Your task to perform on an android device: refresh tabs in the chrome app Image 0: 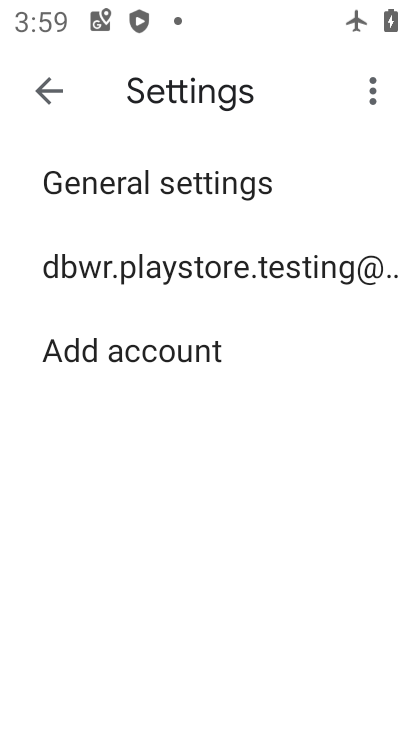
Step 0: press back button
Your task to perform on an android device: refresh tabs in the chrome app Image 1: 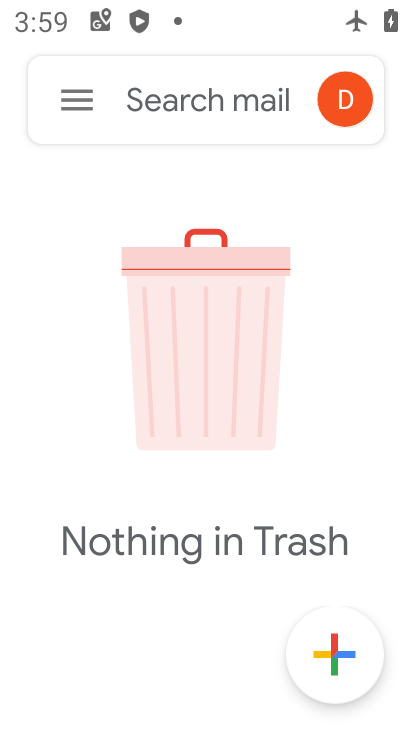
Step 1: press back button
Your task to perform on an android device: refresh tabs in the chrome app Image 2: 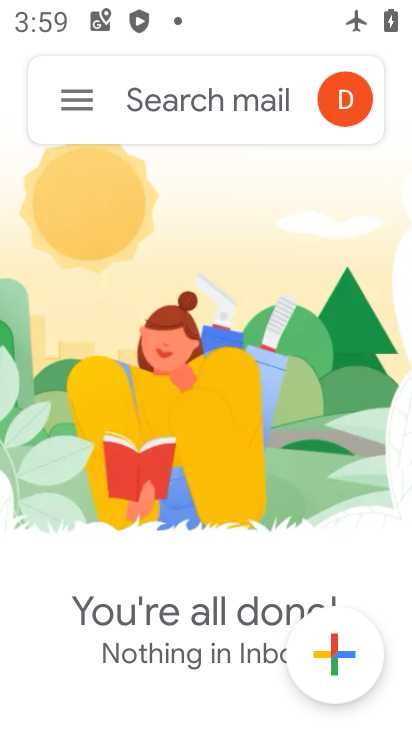
Step 2: press back button
Your task to perform on an android device: refresh tabs in the chrome app Image 3: 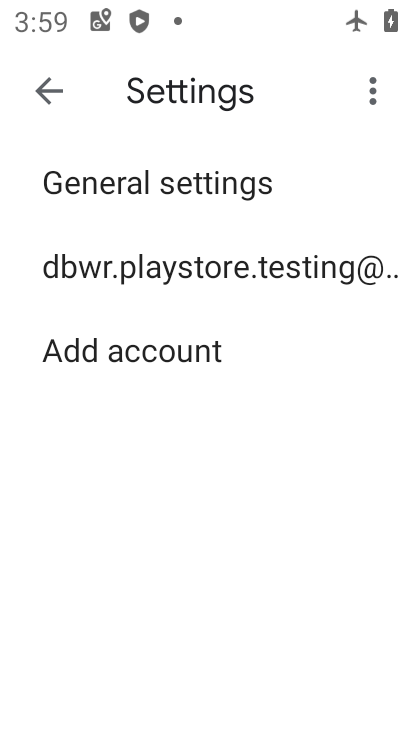
Step 3: press back button
Your task to perform on an android device: refresh tabs in the chrome app Image 4: 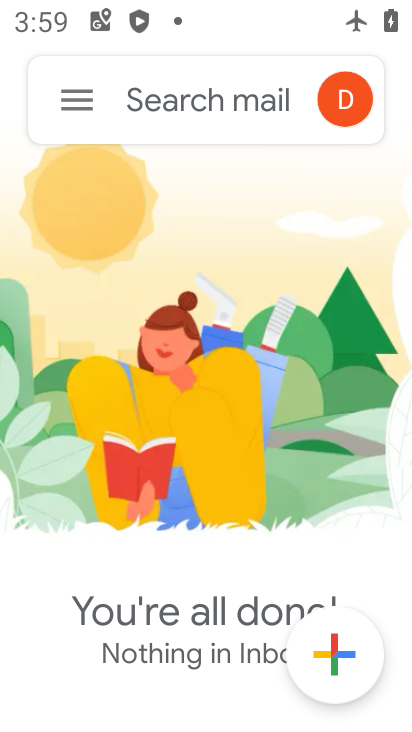
Step 4: press back button
Your task to perform on an android device: refresh tabs in the chrome app Image 5: 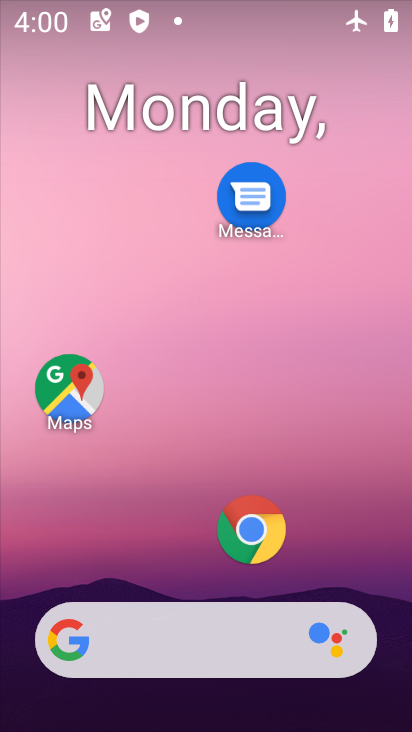
Step 5: click (233, 528)
Your task to perform on an android device: refresh tabs in the chrome app Image 6: 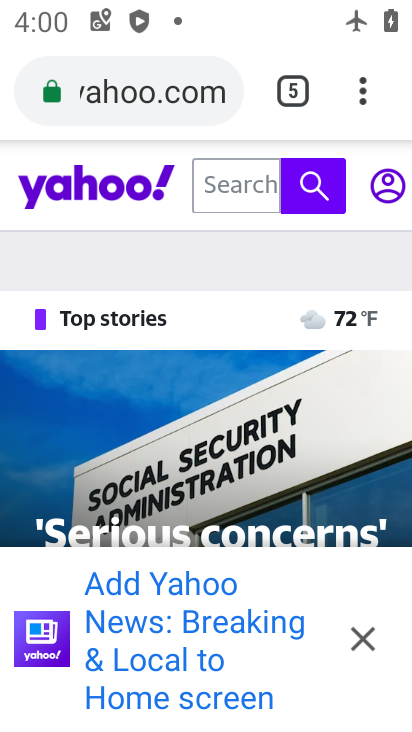
Step 6: task complete